Your task to perform on an android device: open device folders in google photos Image 0: 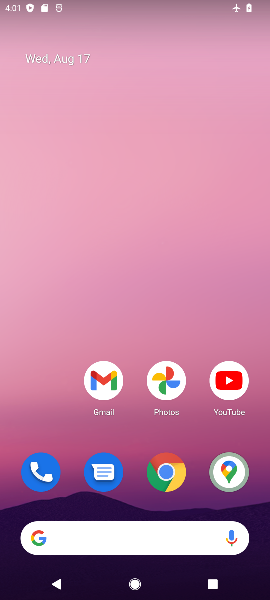
Step 0: click (159, 386)
Your task to perform on an android device: open device folders in google photos Image 1: 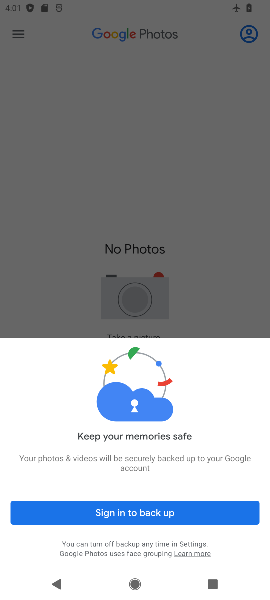
Step 1: click (106, 309)
Your task to perform on an android device: open device folders in google photos Image 2: 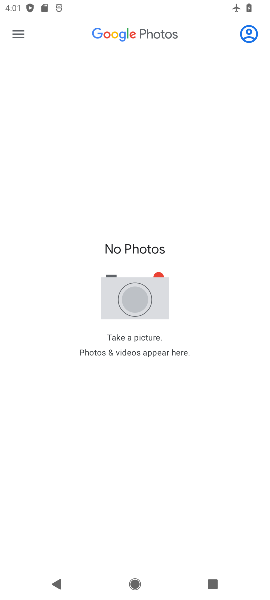
Step 2: click (22, 34)
Your task to perform on an android device: open device folders in google photos Image 3: 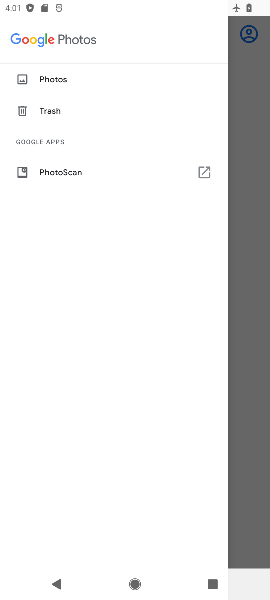
Step 3: task complete